Your task to perform on an android device: turn pop-ups off in chrome Image 0: 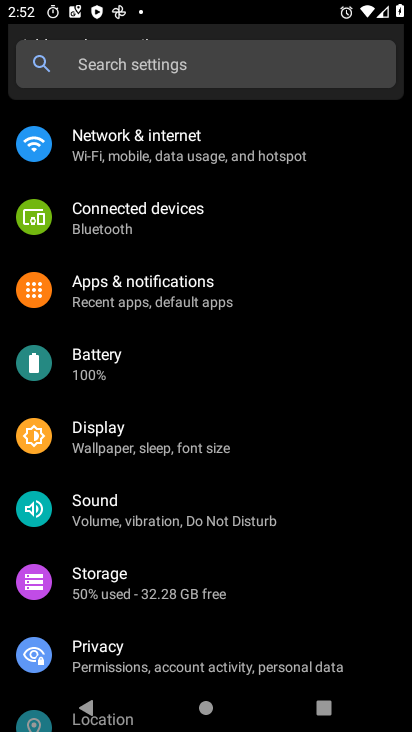
Step 0: click (245, 630)
Your task to perform on an android device: turn pop-ups off in chrome Image 1: 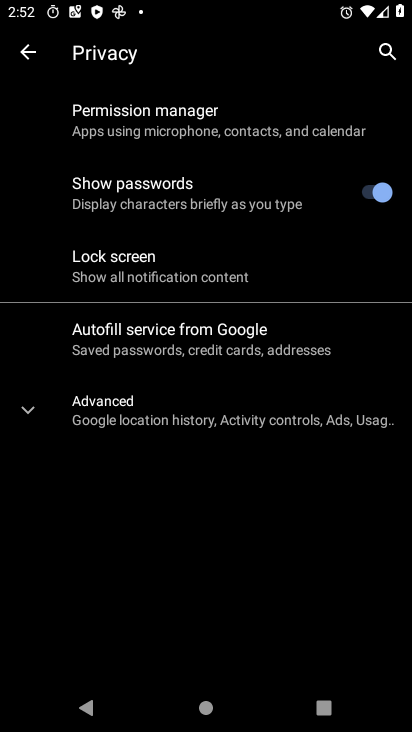
Step 1: press home button
Your task to perform on an android device: turn pop-ups off in chrome Image 2: 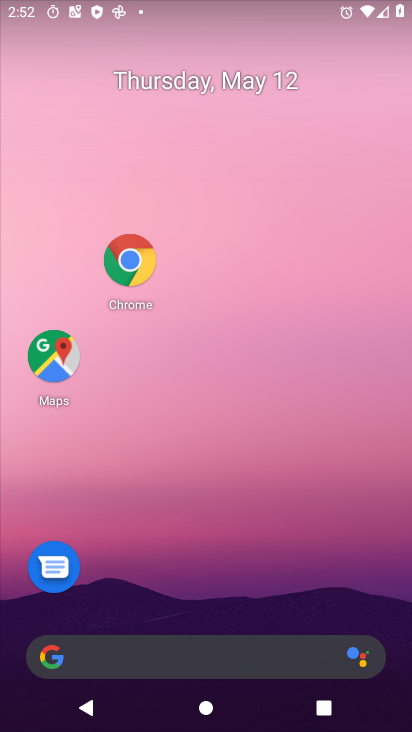
Step 2: click (139, 259)
Your task to perform on an android device: turn pop-ups off in chrome Image 3: 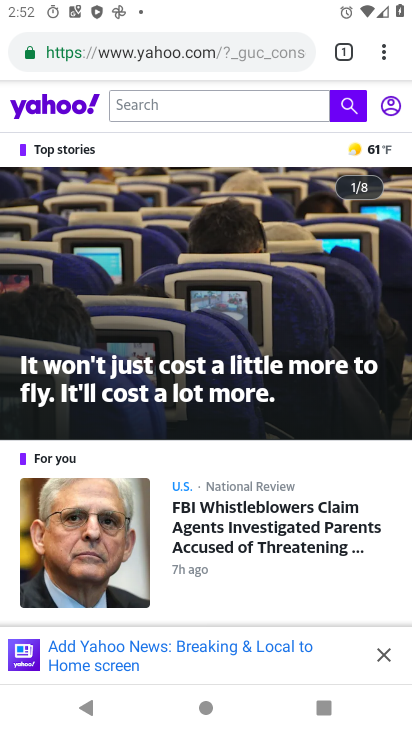
Step 3: click (387, 49)
Your task to perform on an android device: turn pop-ups off in chrome Image 4: 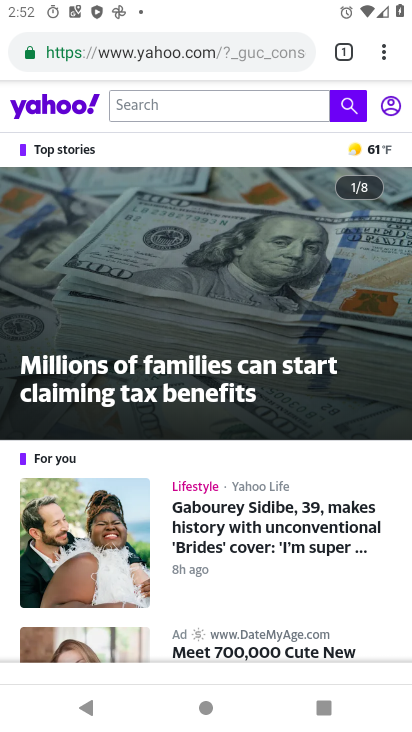
Step 4: click (387, 50)
Your task to perform on an android device: turn pop-ups off in chrome Image 5: 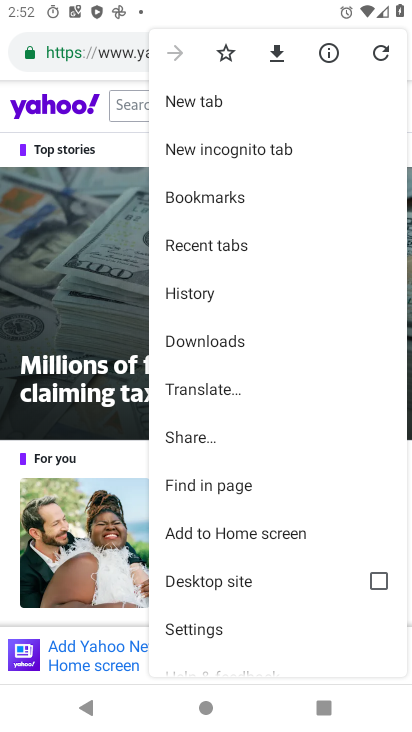
Step 5: click (203, 632)
Your task to perform on an android device: turn pop-ups off in chrome Image 6: 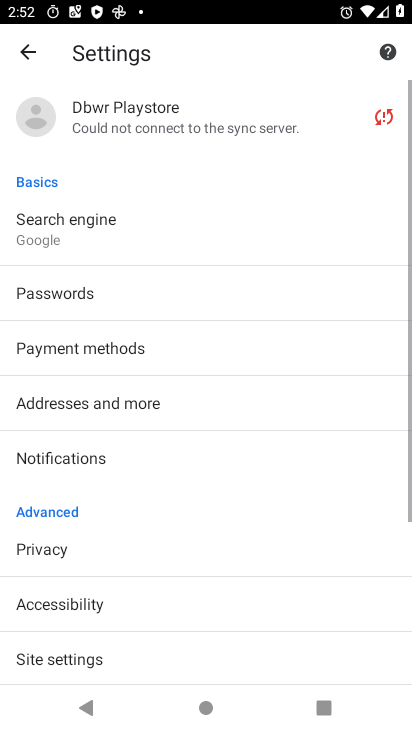
Step 6: click (58, 664)
Your task to perform on an android device: turn pop-ups off in chrome Image 7: 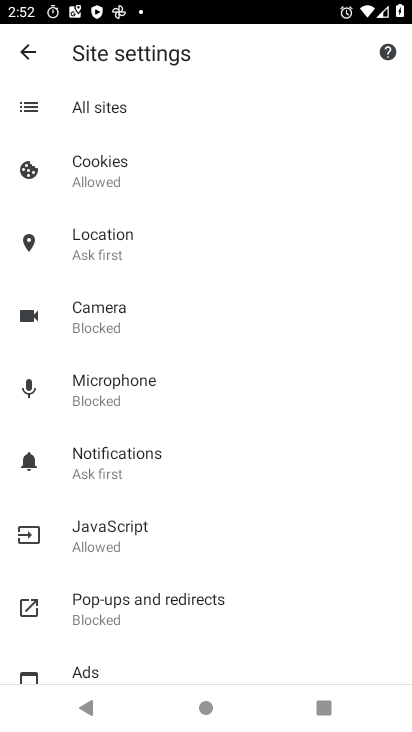
Step 7: click (102, 608)
Your task to perform on an android device: turn pop-ups off in chrome Image 8: 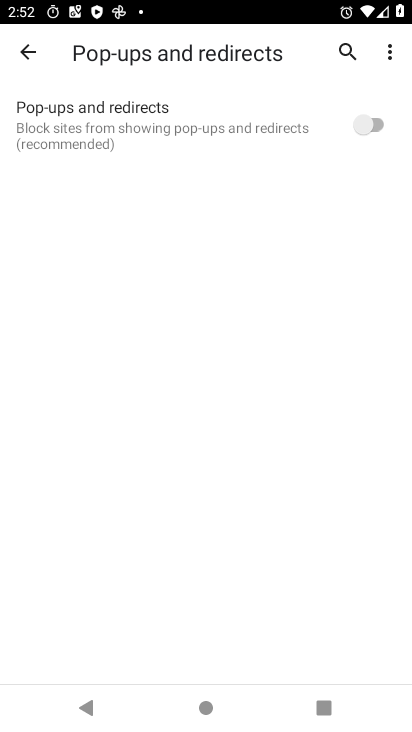
Step 8: task complete